Your task to perform on an android device: add a contact in the contacts app Image 0: 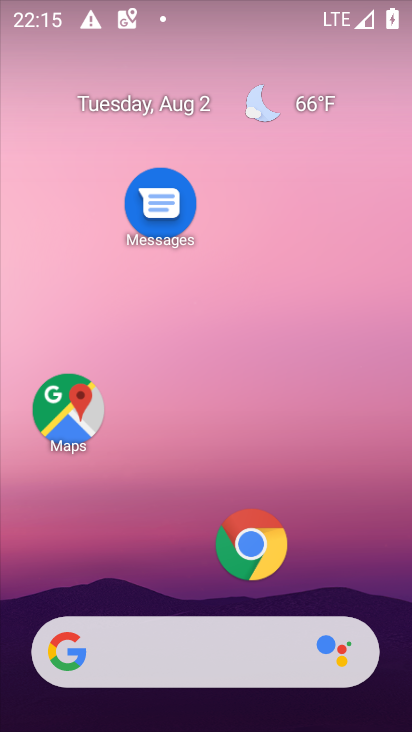
Step 0: drag from (181, 584) to (212, 159)
Your task to perform on an android device: add a contact in the contacts app Image 1: 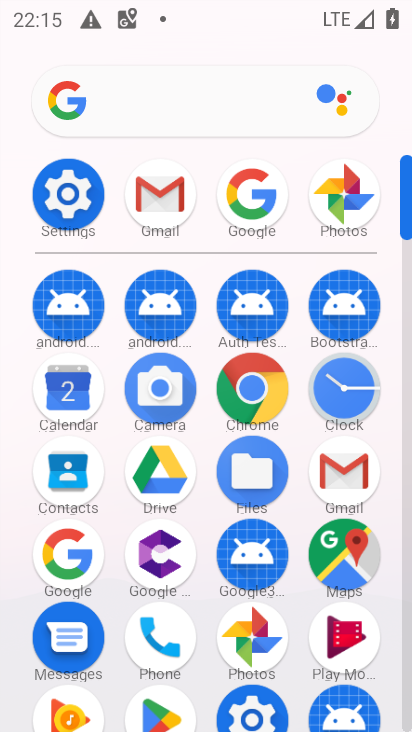
Step 1: click (63, 484)
Your task to perform on an android device: add a contact in the contacts app Image 2: 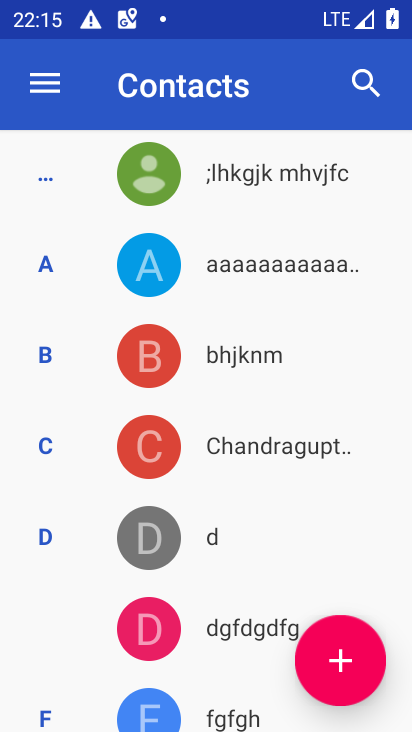
Step 2: click (324, 644)
Your task to perform on an android device: add a contact in the contacts app Image 3: 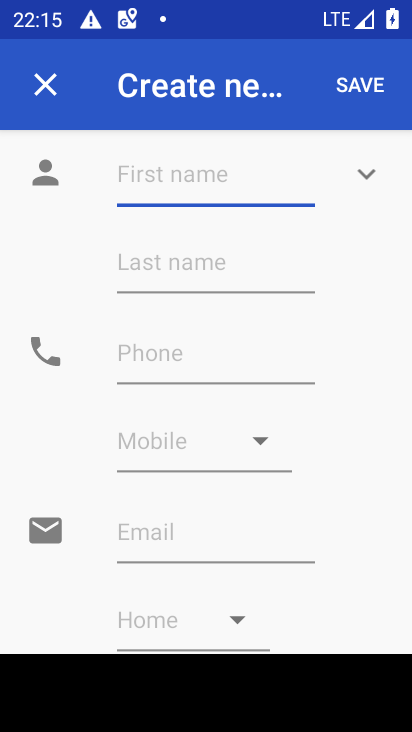
Step 3: type "ghjg"
Your task to perform on an android device: add a contact in the contacts app Image 4: 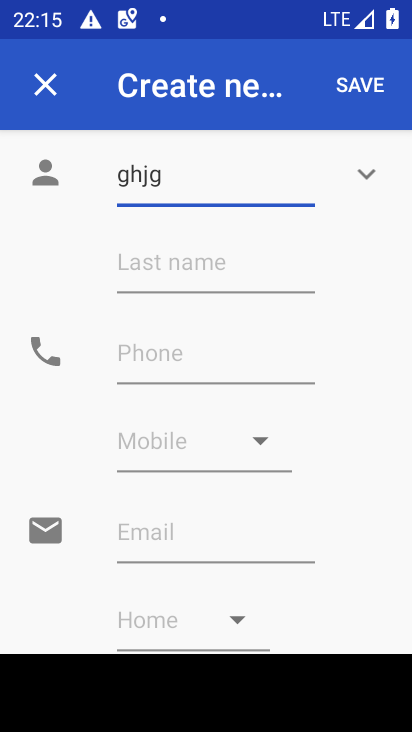
Step 4: click (155, 353)
Your task to perform on an android device: add a contact in the contacts app Image 5: 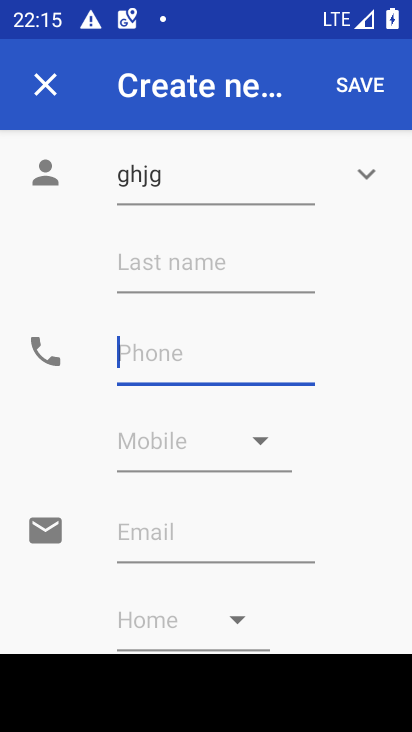
Step 5: type "965745756"
Your task to perform on an android device: add a contact in the contacts app Image 6: 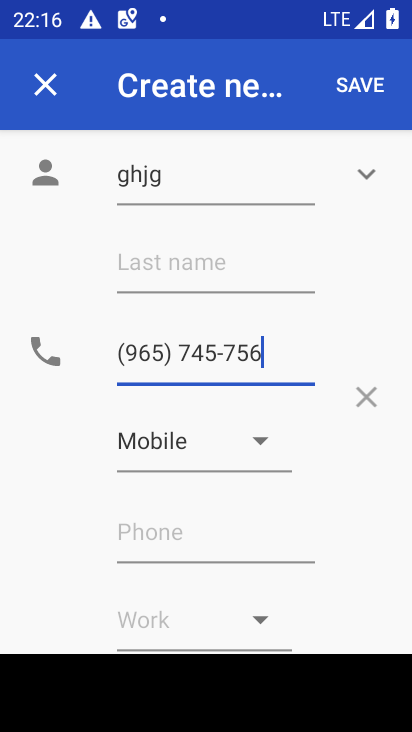
Step 6: click (351, 94)
Your task to perform on an android device: add a contact in the contacts app Image 7: 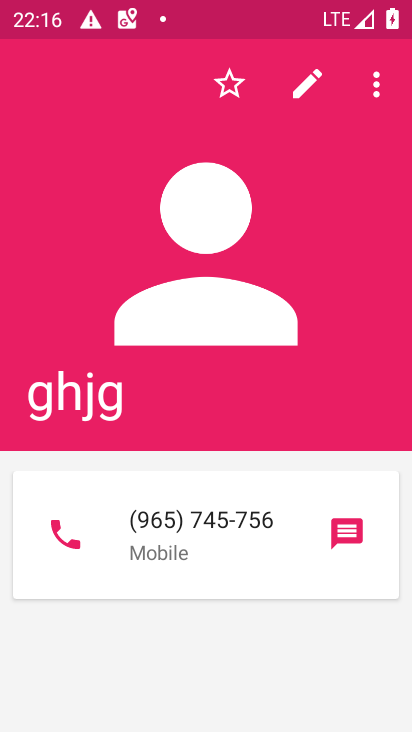
Step 7: task complete